Your task to perform on an android device: all mails in gmail Image 0: 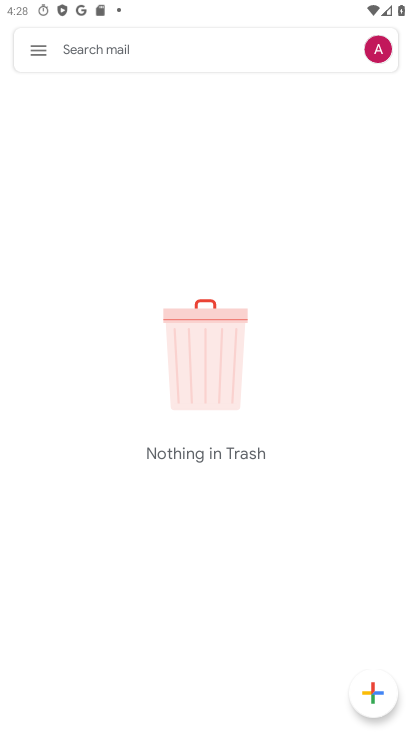
Step 0: click (28, 42)
Your task to perform on an android device: all mails in gmail Image 1: 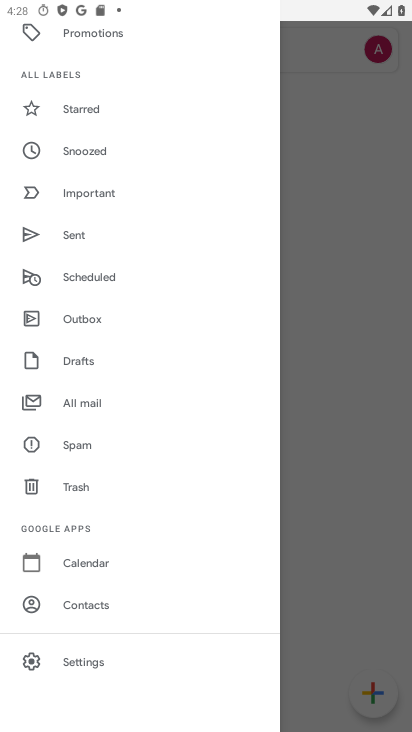
Step 1: click (79, 403)
Your task to perform on an android device: all mails in gmail Image 2: 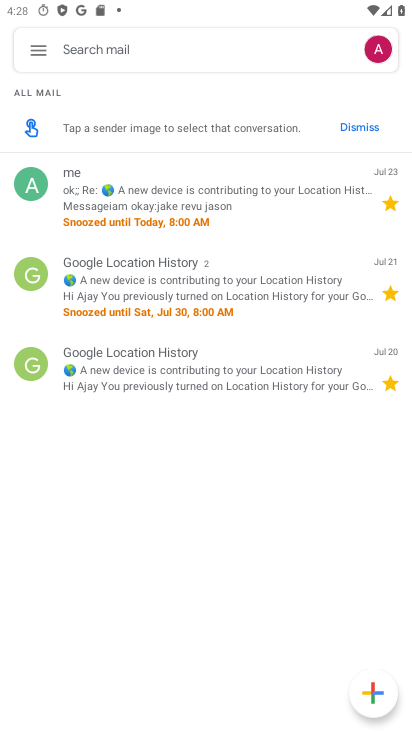
Step 2: task complete